Your task to perform on an android device: turn on priority inbox in the gmail app Image 0: 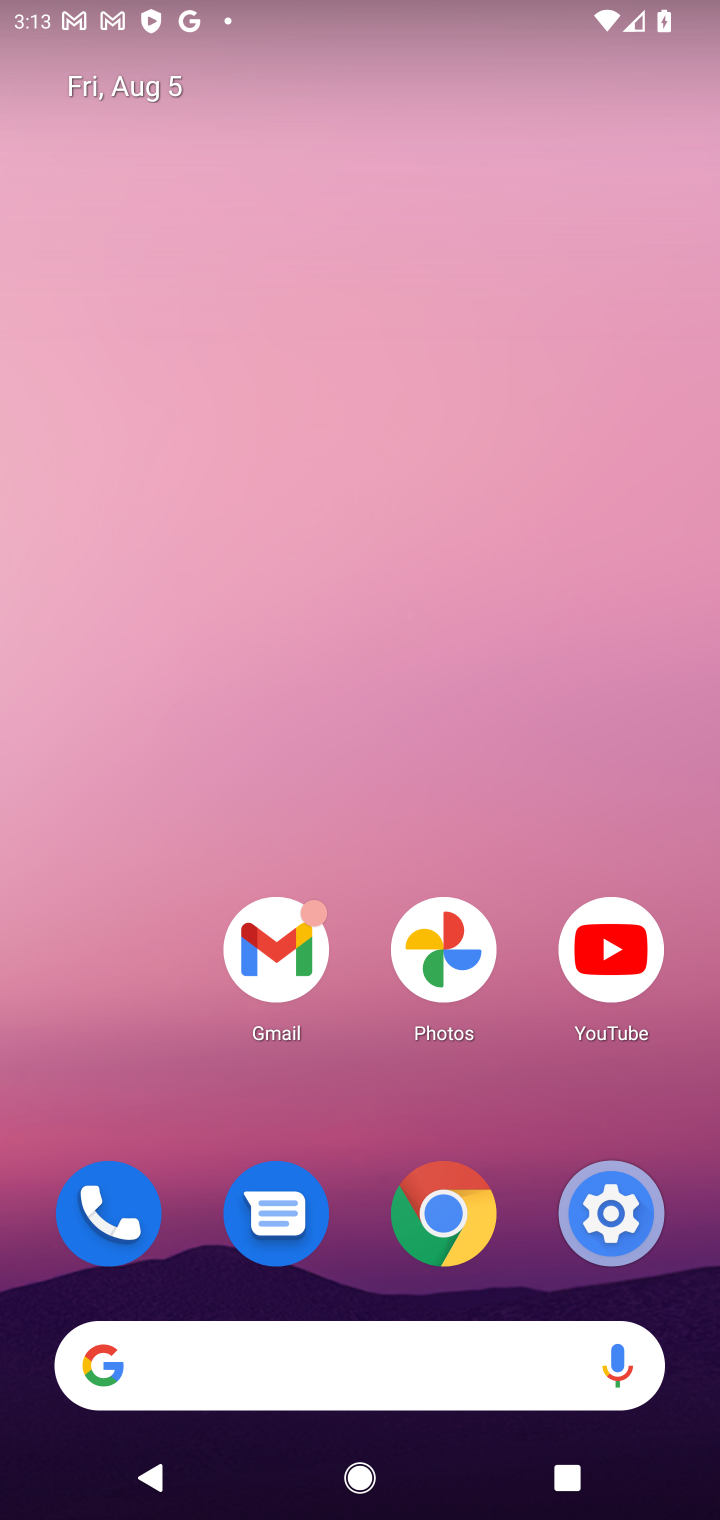
Step 0: click (264, 963)
Your task to perform on an android device: turn on priority inbox in the gmail app Image 1: 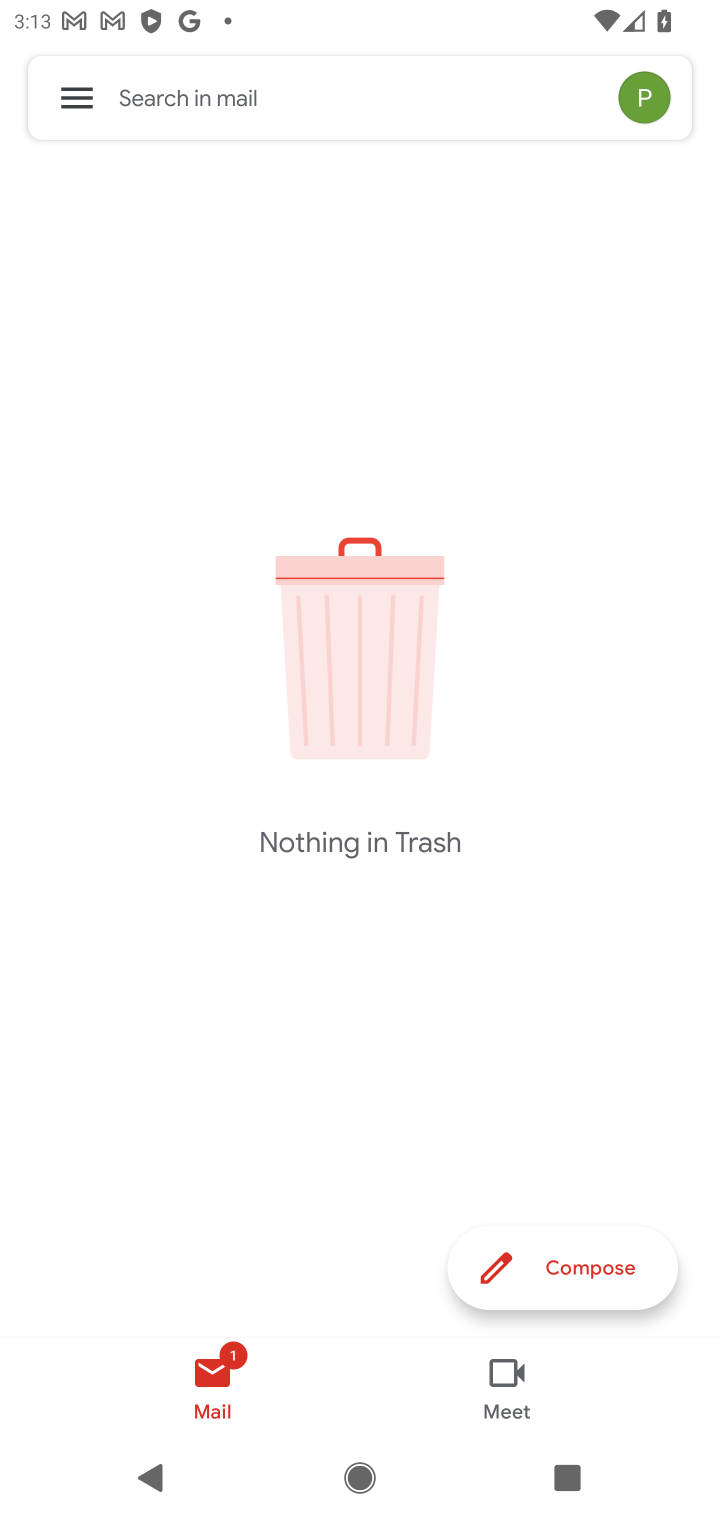
Step 1: click (59, 88)
Your task to perform on an android device: turn on priority inbox in the gmail app Image 2: 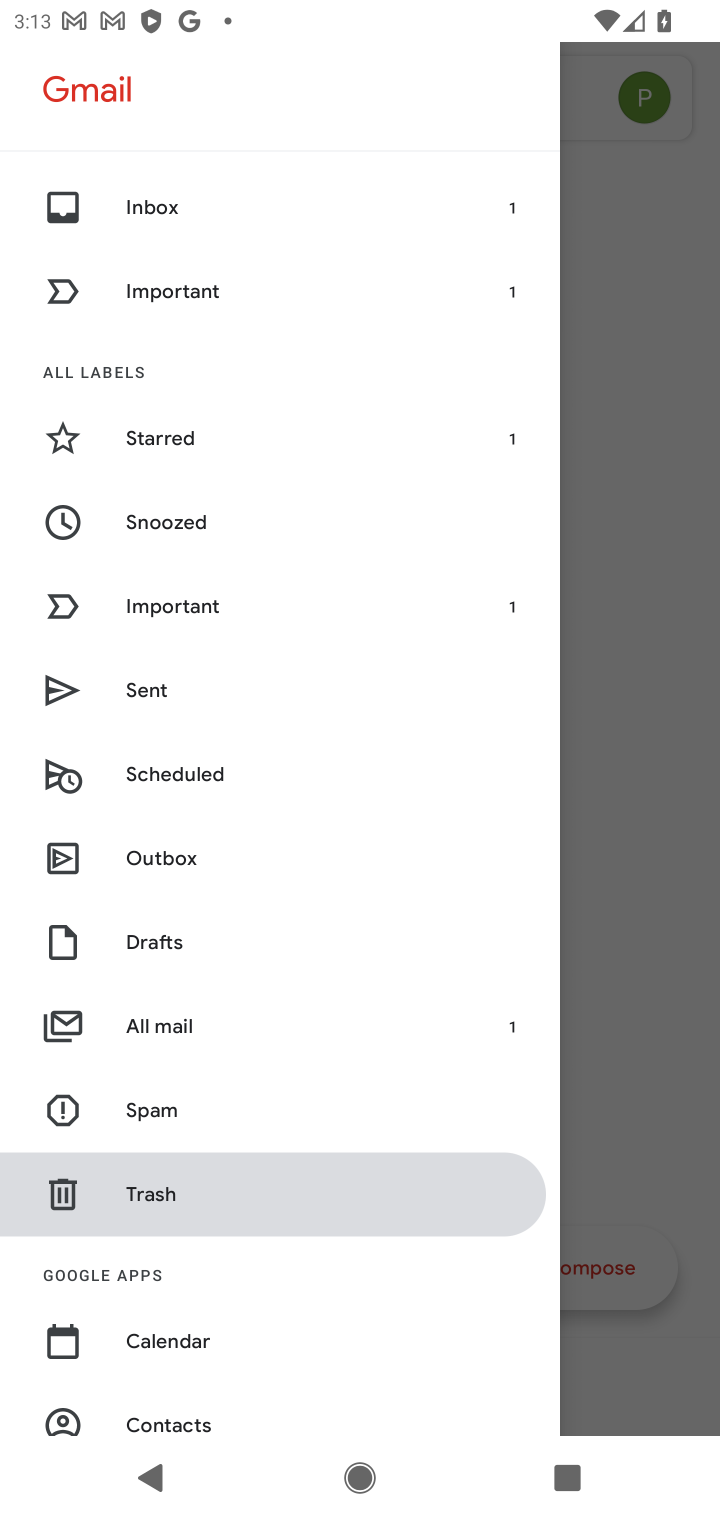
Step 2: drag from (244, 1352) to (241, 728)
Your task to perform on an android device: turn on priority inbox in the gmail app Image 3: 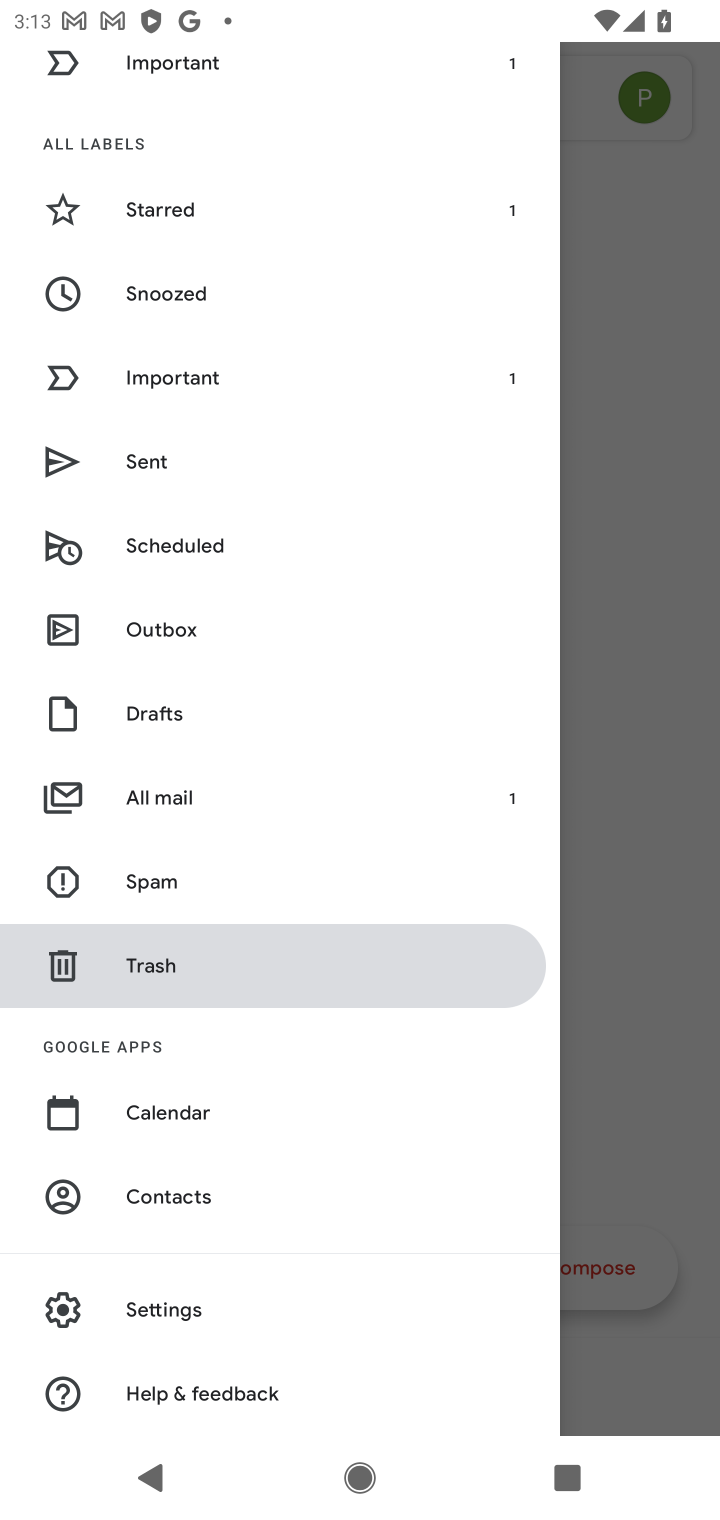
Step 3: click (222, 1302)
Your task to perform on an android device: turn on priority inbox in the gmail app Image 4: 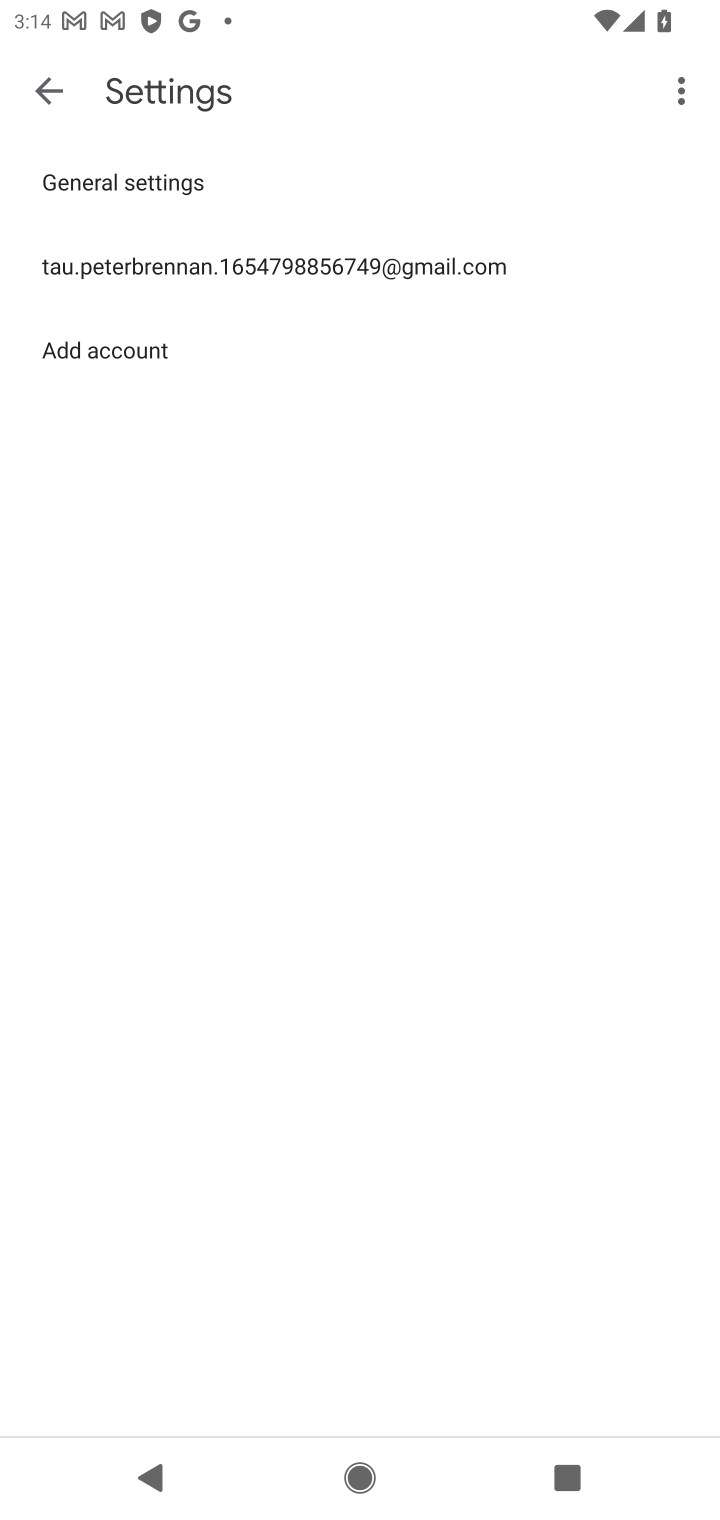
Step 4: click (230, 293)
Your task to perform on an android device: turn on priority inbox in the gmail app Image 5: 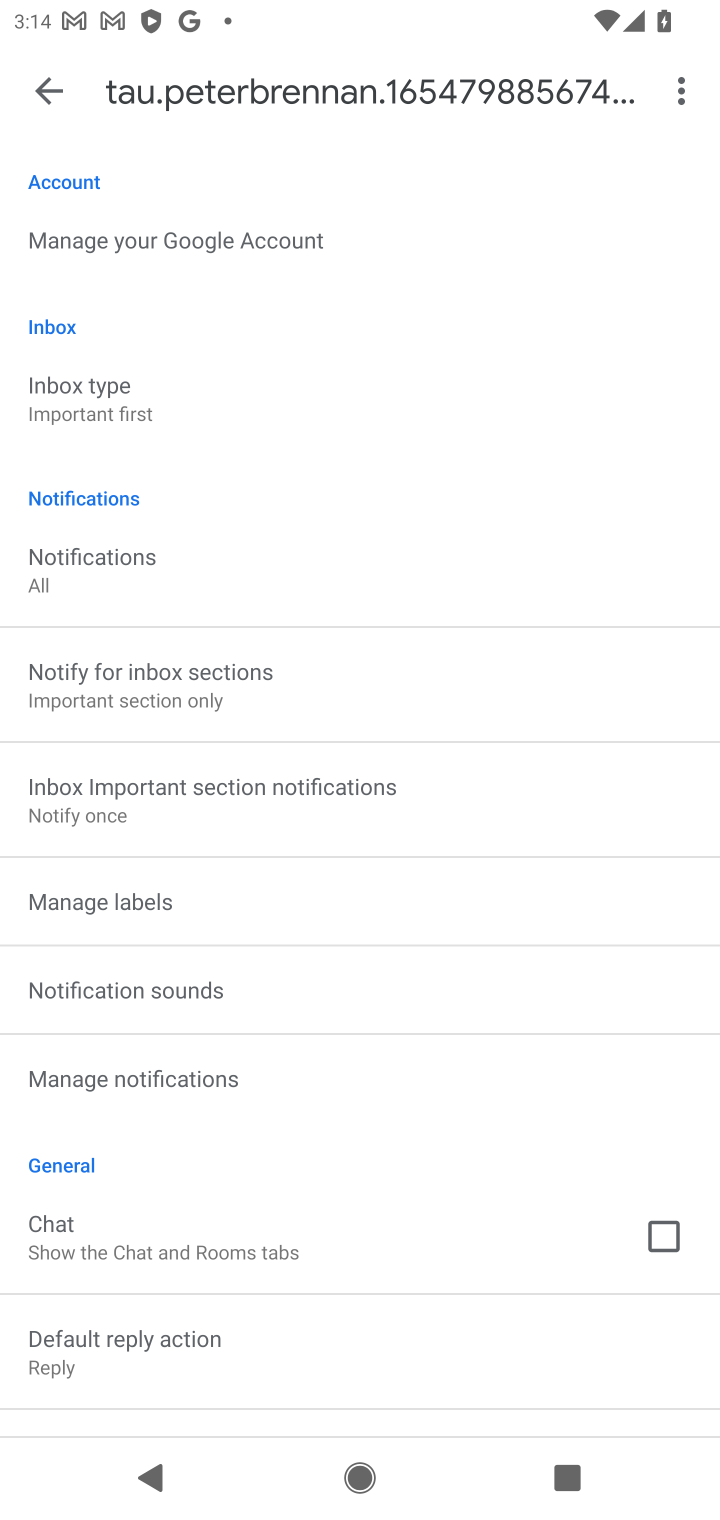
Step 5: click (152, 433)
Your task to perform on an android device: turn on priority inbox in the gmail app Image 6: 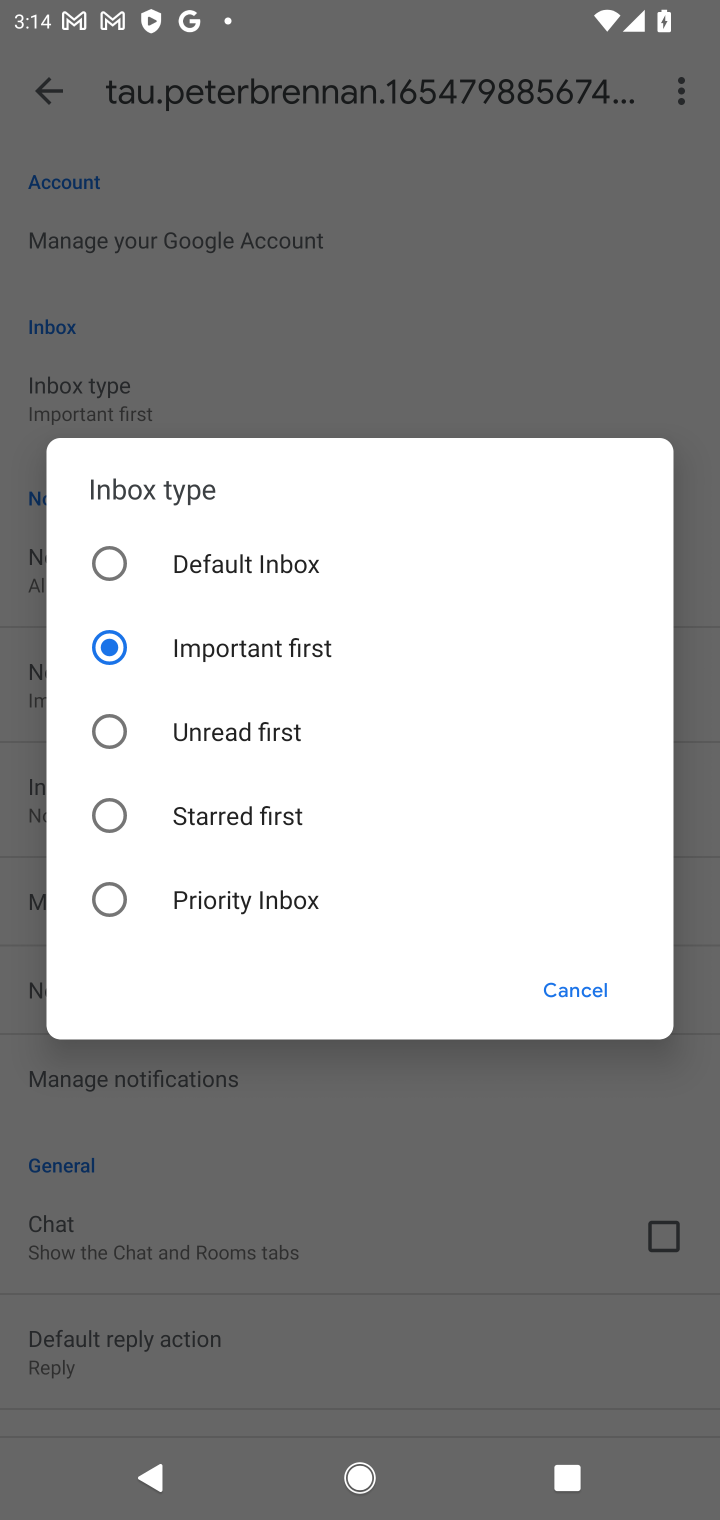
Step 6: click (243, 892)
Your task to perform on an android device: turn on priority inbox in the gmail app Image 7: 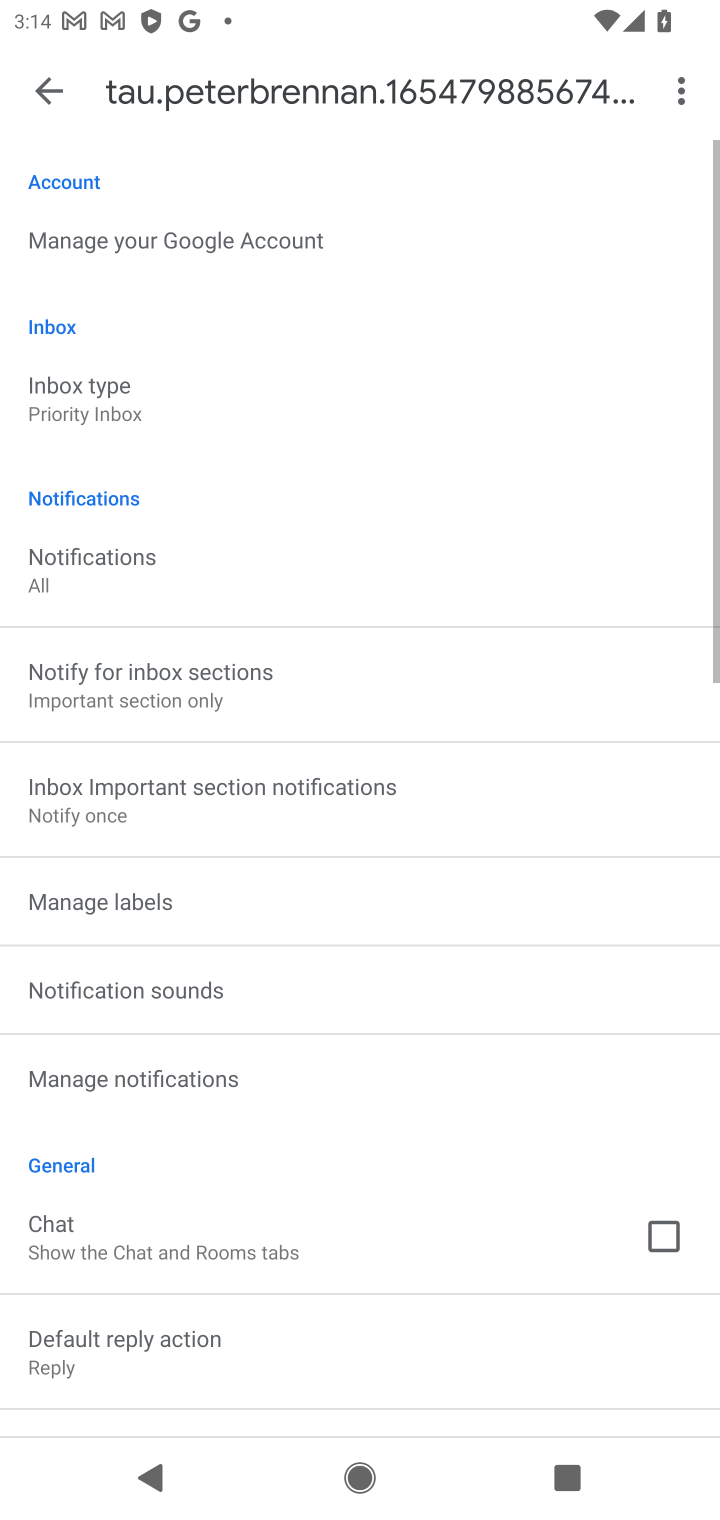
Step 7: task complete